Your task to perform on an android device: Open the calendar and show me this week's events Image 0: 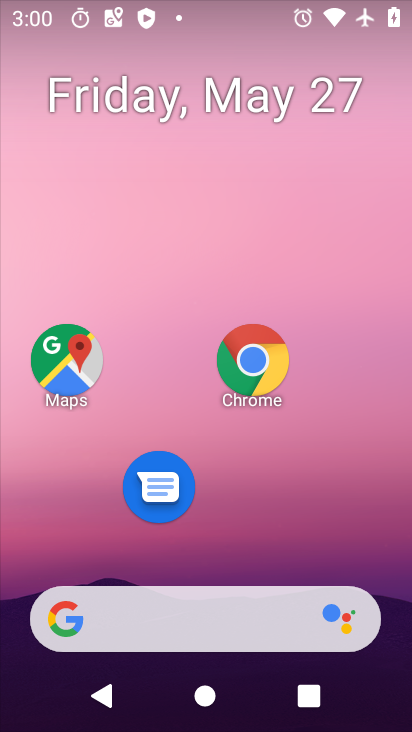
Step 0: drag from (266, 544) to (303, 78)
Your task to perform on an android device: Open the calendar and show me this week's events Image 1: 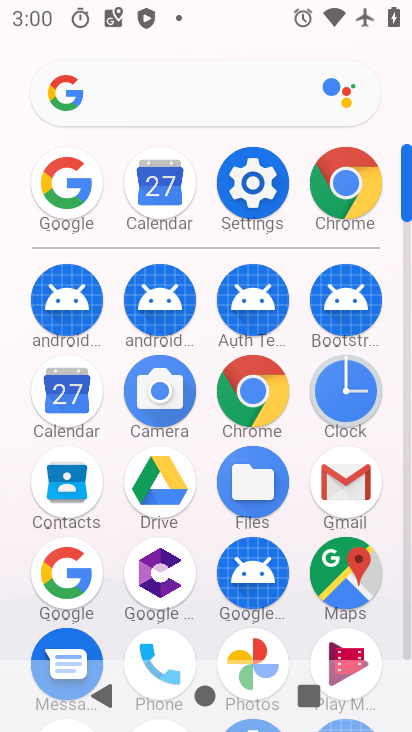
Step 1: click (60, 384)
Your task to perform on an android device: Open the calendar and show me this week's events Image 2: 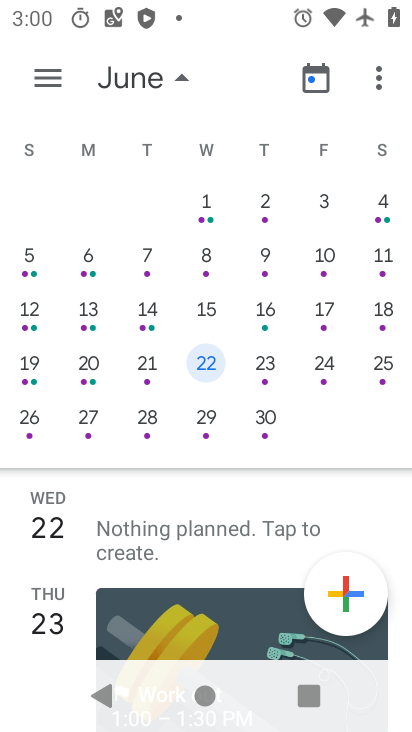
Step 2: drag from (219, 385) to (397, 383)
Your task to perform on an android device: Open the calendar and show me this week's events Image 3: 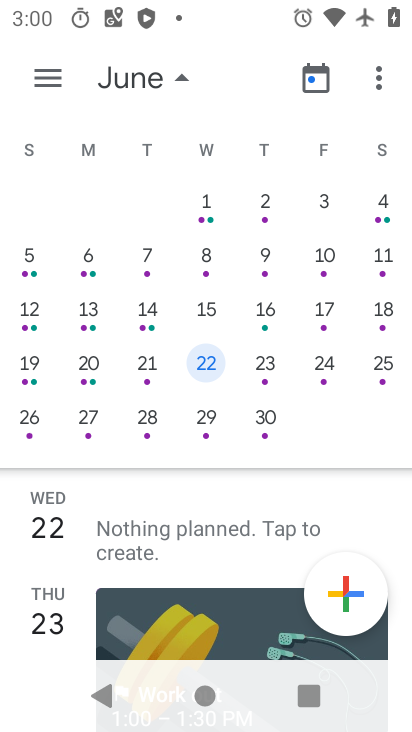
Step 3: drag from (21, 395) to (88, 405)
Your task to perform on an android device: Open the calendar and show me this week's events Image 4: 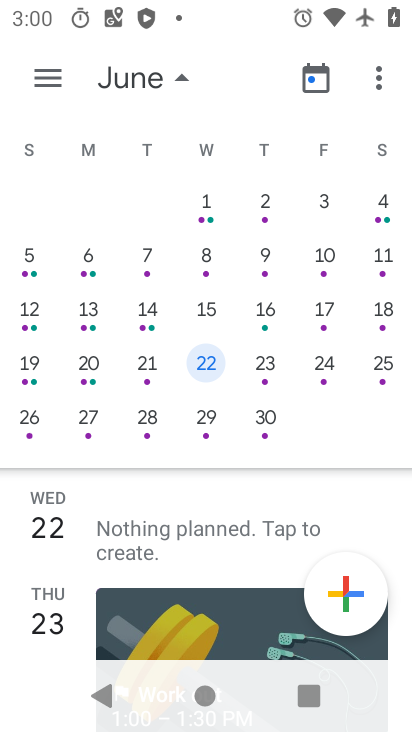
Step 4: drag from (47, 392) to (411, 375)
Your task to perform on an android device: Open the calendar and show me this week's events Image 5: 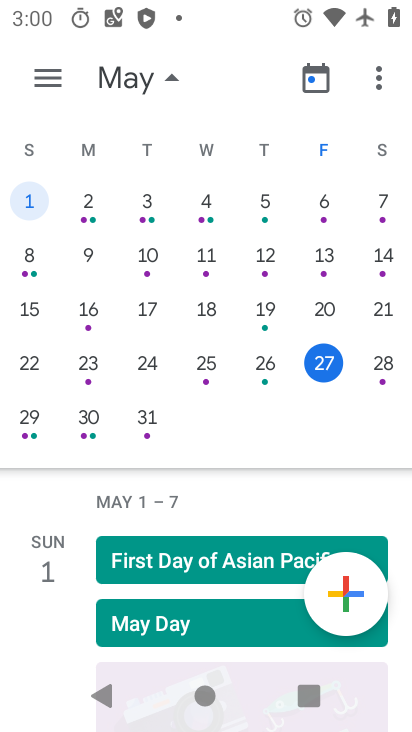
Step 5: click (390, 360)
Your task to perform on an android device: Open the calendar and show me this week's events Image 6: 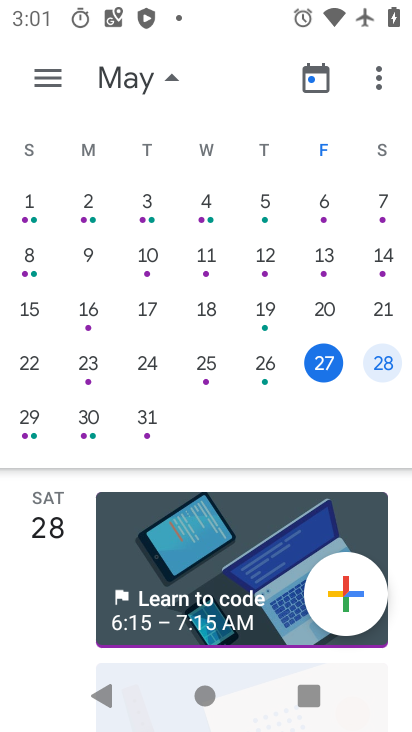
Step 6: task complete